Your task to perform on an android device: Show me popular videos on Youtube Image 0: 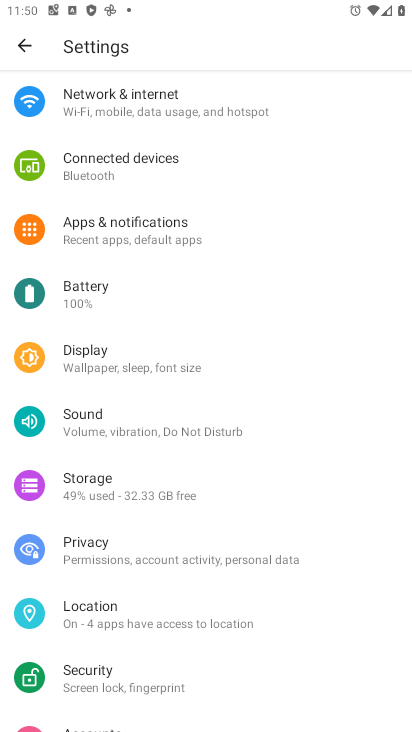
Step 0: press home button
Your task to perform on an android device: Show me popular videos on Youtube Image 1: 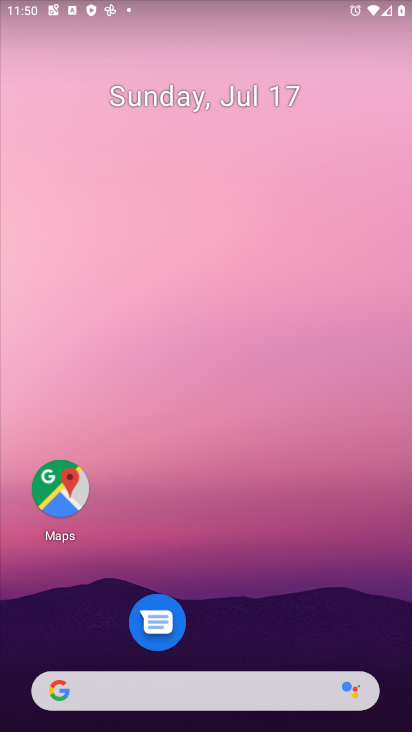
Step 1: drag from (209, 659) to (226, 202)
Your task to perform on an android device: Show me popular videos on Youtube Image 2: 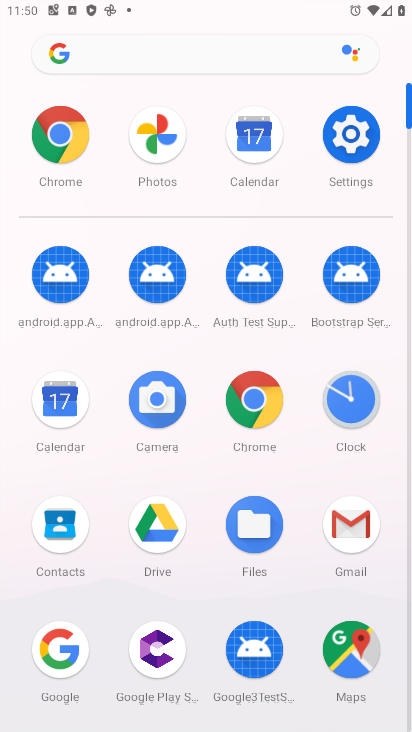
Step 2: drag from (180, 541) to (242, 125)
Your task to perform on an android device: Show me popular videos on Youtube Image 3: 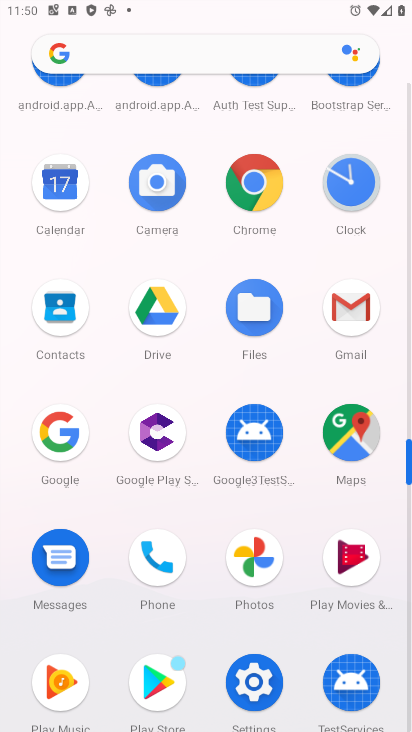
Step 3: drag from (314, 597) to (276, 91)
Your task to perform on an android device: Show me popular videos on Youtube Image 4: 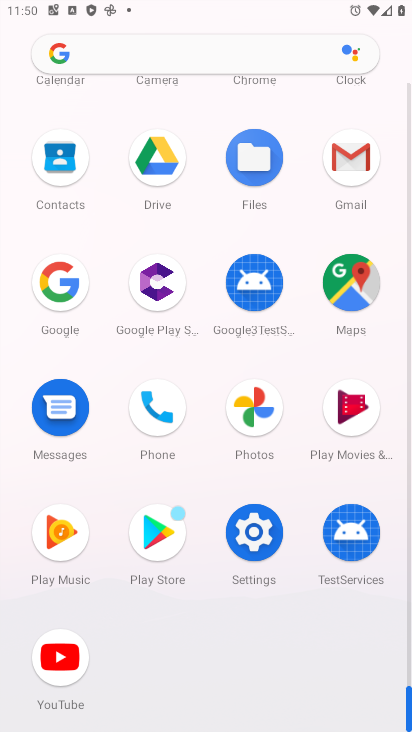
Step 4: click (39, 659)
Your task to perform on an android device: Show me popular videos on Youtube Image 5: 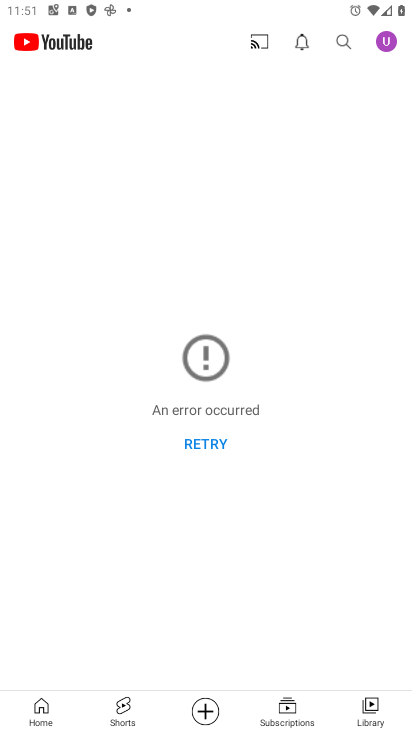
Step 5: click (39, 713)
Your task to perform on an android device: Show me popular videos on Youtube Image 6: 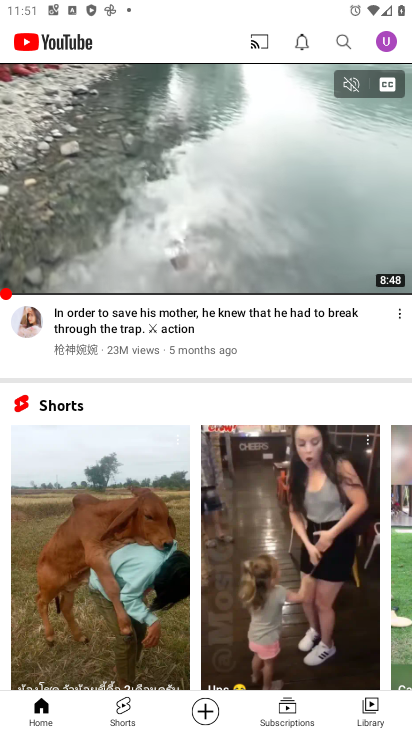
Step 6: task complete